Your task to perform on an android device: change the clock display to digital Image 0: 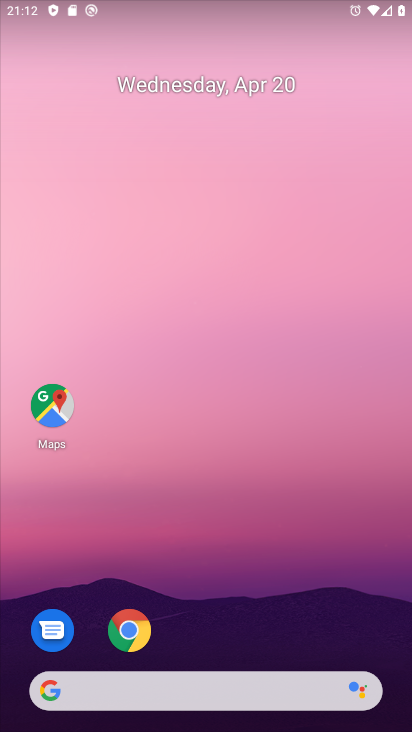
Step 0: drag from (273, 566) to (289, 208)
Your task to perform on an android device: change the clock display to digital Image 1: 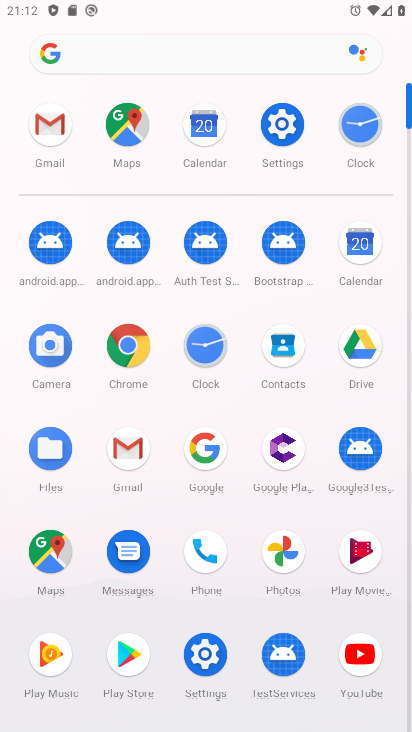
Step 1: click (354, 128)
Your task to perform on an android device: change the clock display to digital Image 2: 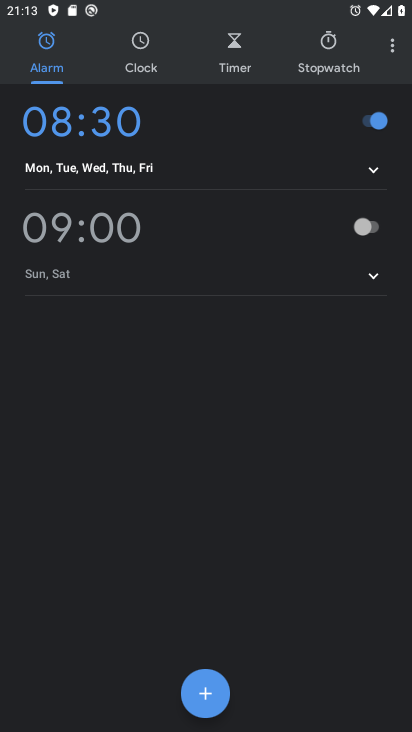
Step 2: click (393, 50)
Your task to perform on an android device: change the clock display to digital Image 3: 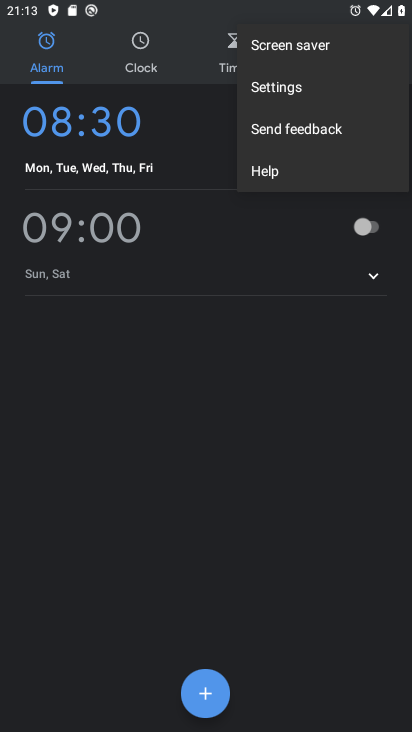
Step 3: click (292, 92)
Your task to perform on an android device: change the clock display to digital Image 4: 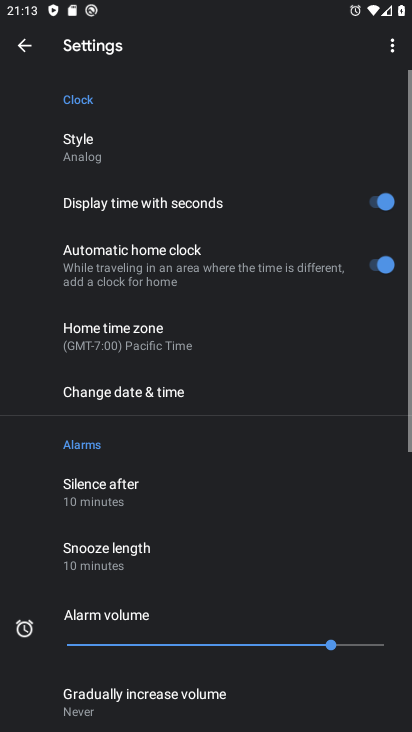
Step 4: click (69, 147)
Your task to perform on an android device: change the clock display to digital Image 5: 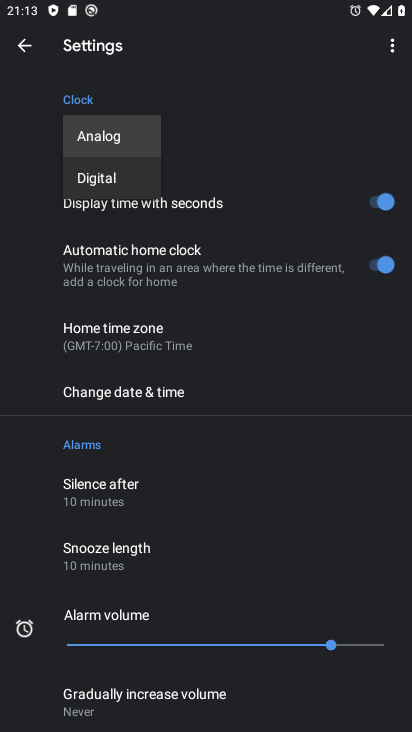
Step 5: click (130, 175)
Your task to perform on an android device: change the clock display to digital Image 6: 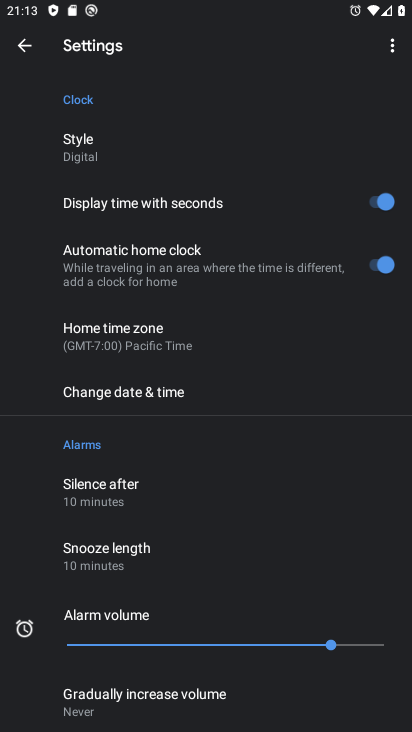
Step 6: task complete